Your task to perform on an android device: Open Chrome and go to settings Image 0: 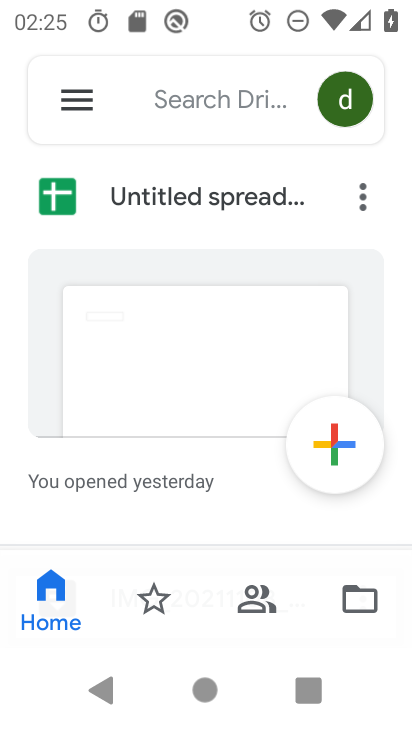
Step 0: press home button
Your task to perform on an android device: Open Chrome and go to settings Image 1: 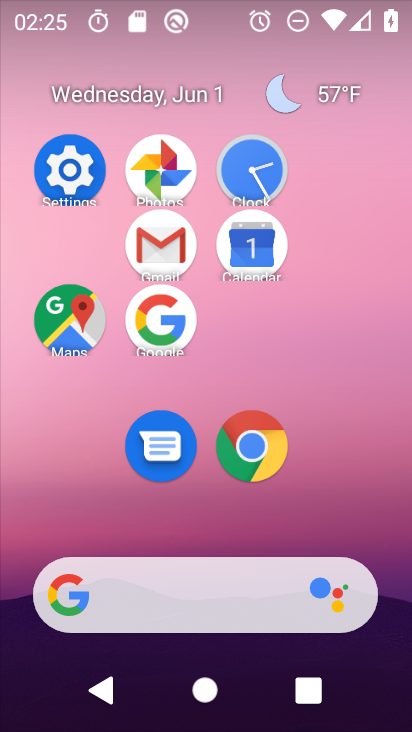
Step 1: click (276, 467)
Your task to perform on an android device: Open Chrome and go to settings Image 2: 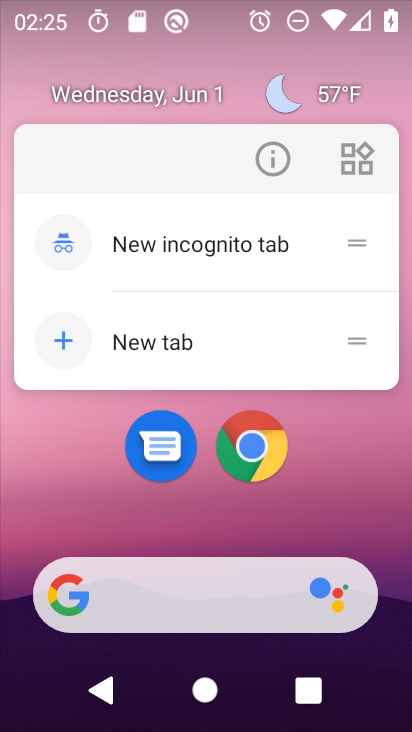
Step 2: click (252, 450)
Your task to perform on an android device: Open Chrome and go to settings Image 3: 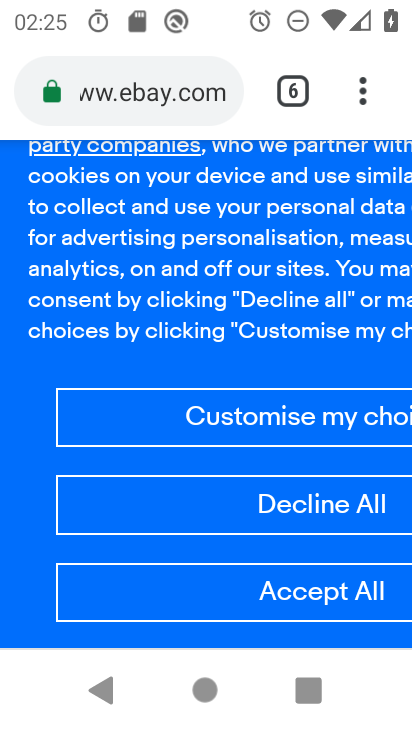
Step 3: click (352, 96)
Your task to perform on an android device: Open Chrome and go to settings Image 4: 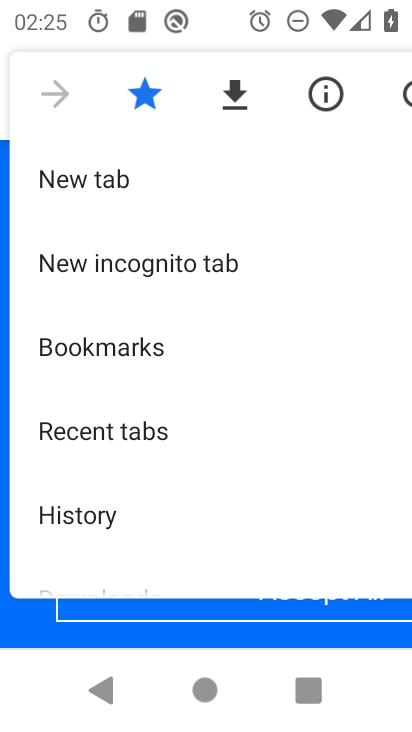
Step 4: drag from (213, 437) to (260, 206)
Your task to perform on an android device: Open Chrome and go to settings Image 5: 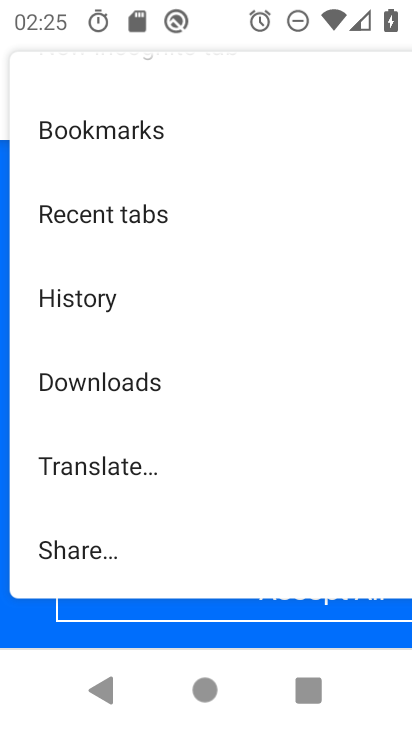
Step 5: drag from (157, 500) to (168, 221)
Your task to perform on an android device: Open Chrome and go to settings Image 6: 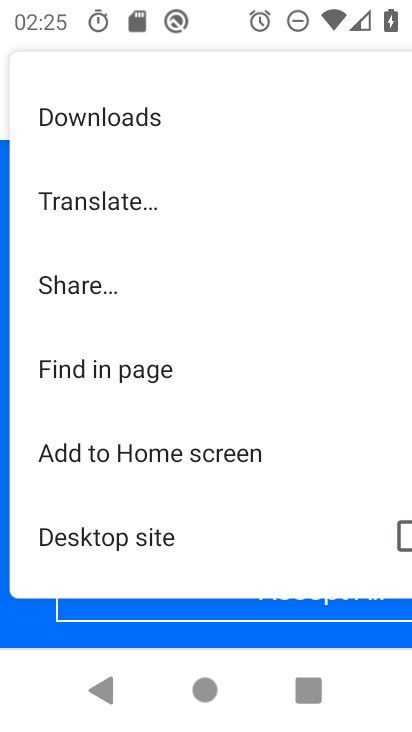
Step 6: drag from (156, 446) to (165, 185)
Your task to perform on an android device: Open Chrome and go to settings Image 7: 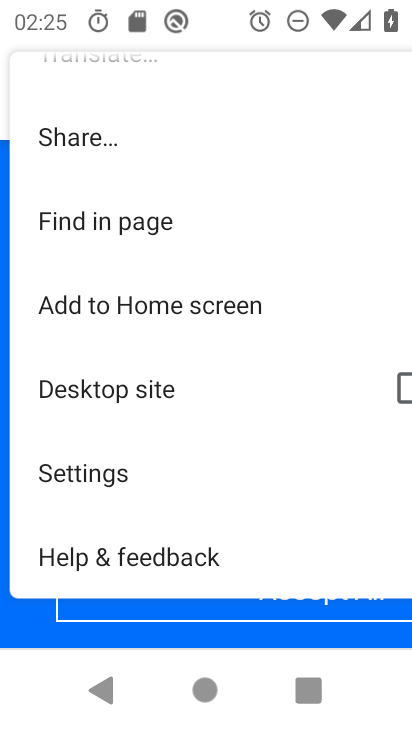
Step 7: click (109, 457)
Your task to perform on an android device: Open Chrome and go to settings Image 8: 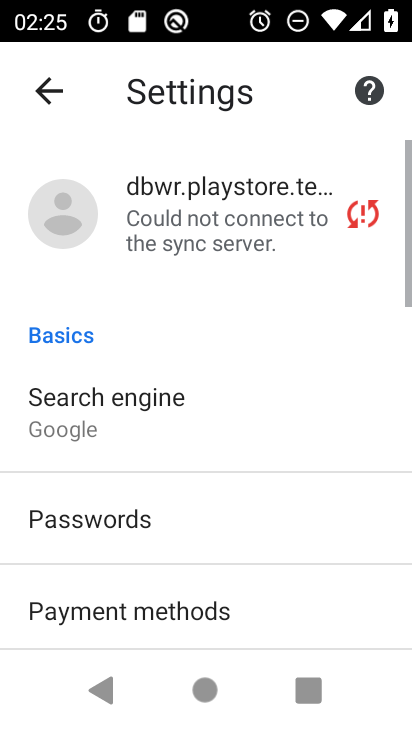
Step 8: task complete